Your task to perform on an android device: Go to Yahoo.com Image 0: 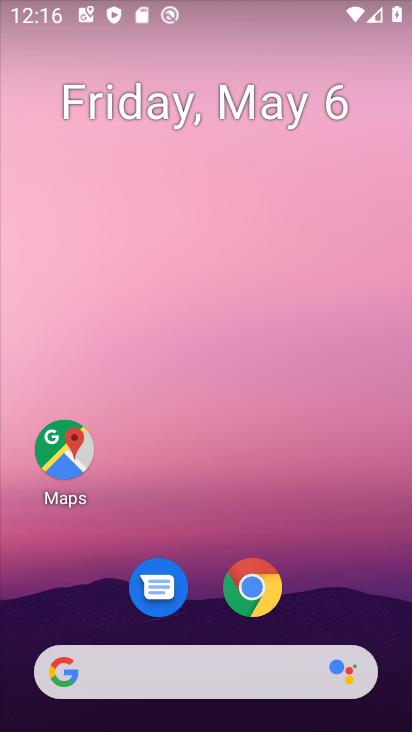
Step 0: click (242, 609)
Your task to perform on an android device: Go to Yahoo.com Image 1: 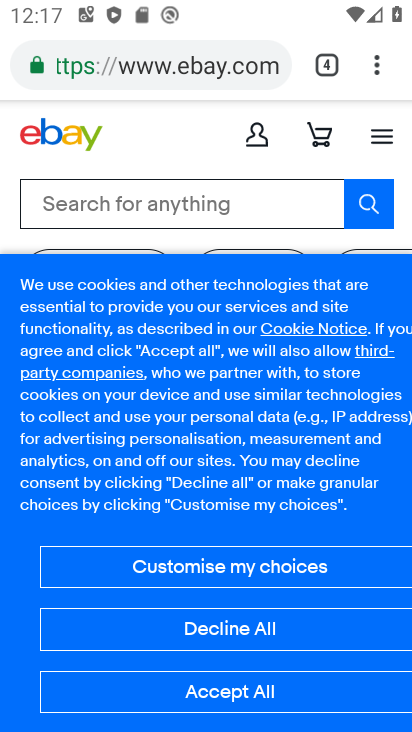
Step 1: click (339, 66)
Your task to perform on an android device: Go to Yahoo.com Image 2: 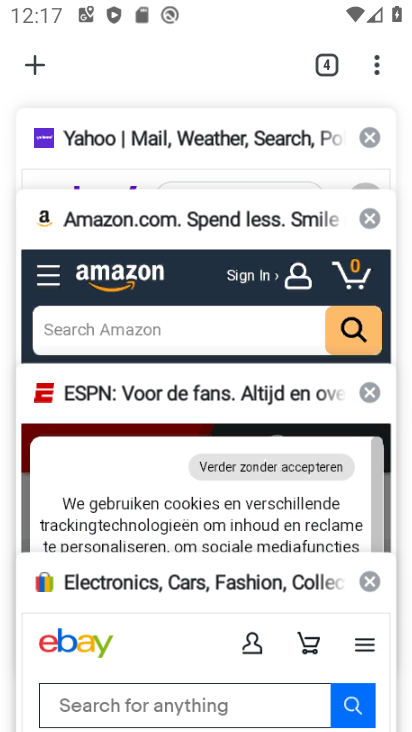
Step 2: click (99, 137)
Your task to perform on an android device: Go to Yahoo.com Image 3: 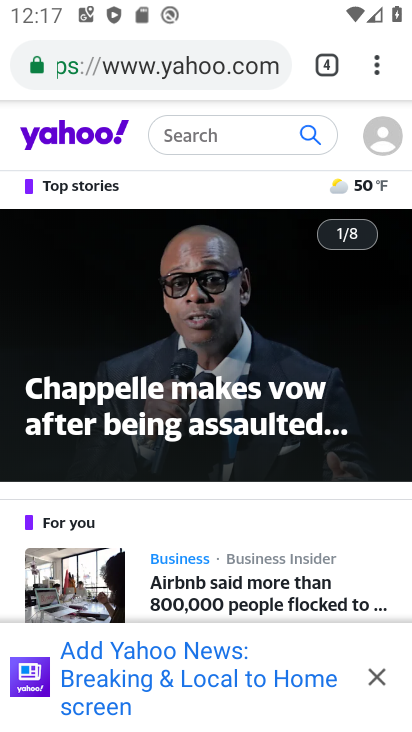
Step 3: task complete